Your task to perform on an android device: turn off improve location accuracy Image 0: 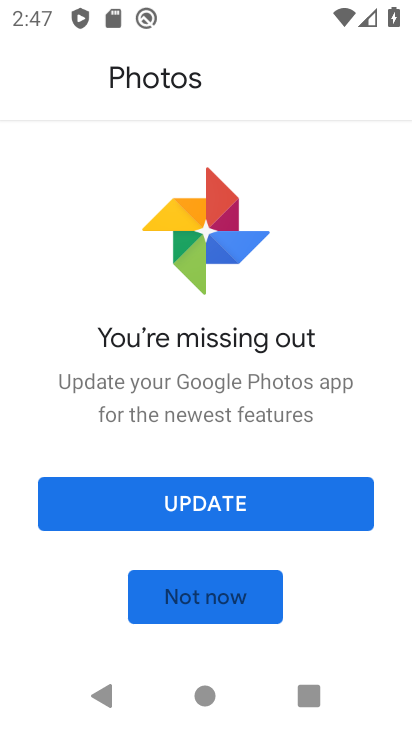
Step 0: press back button
Your task to perform on an android device: turn off improve location accuracy Image 1: 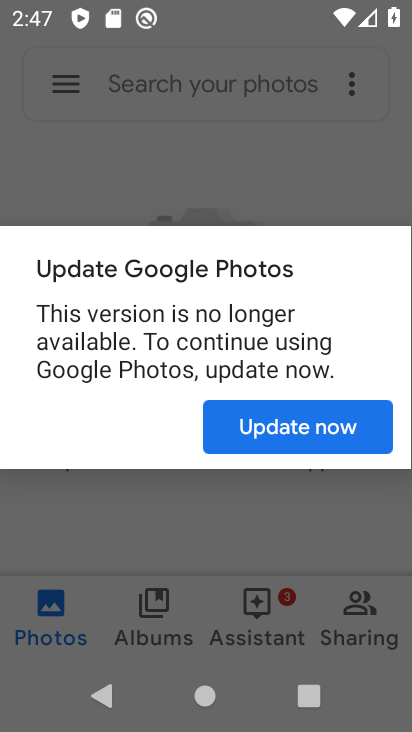
Step 1: press back button
Your task to perform on an android device: turn off improve location accuracy Image 2: 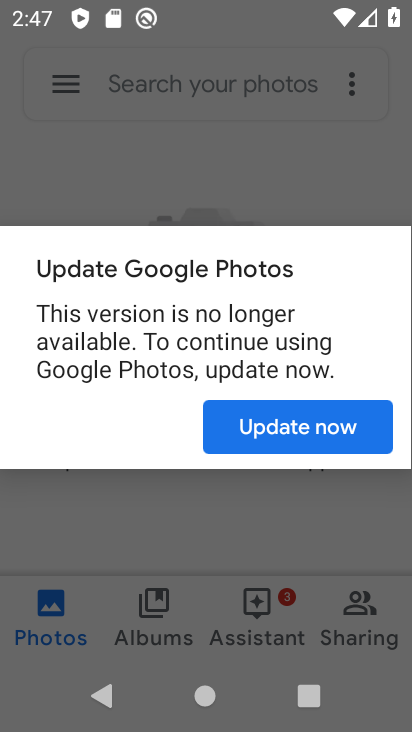
Step 2: press back button
Your task to perform on an android device: turn off improve location accuracy Image 3: 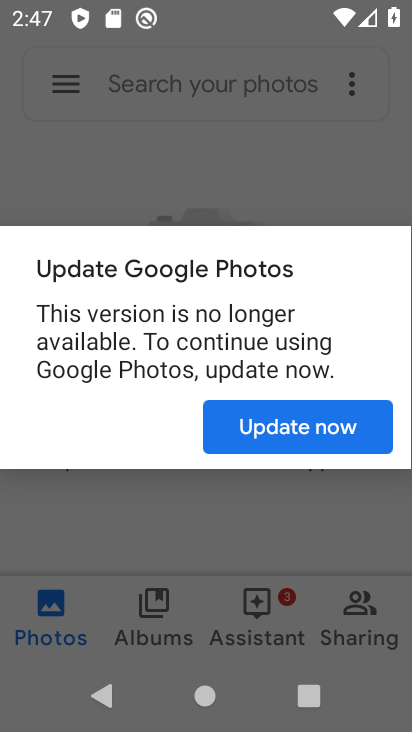
Step 3: press back button
Your task to perform on an android device: turn off improve location accuracy Image 4: 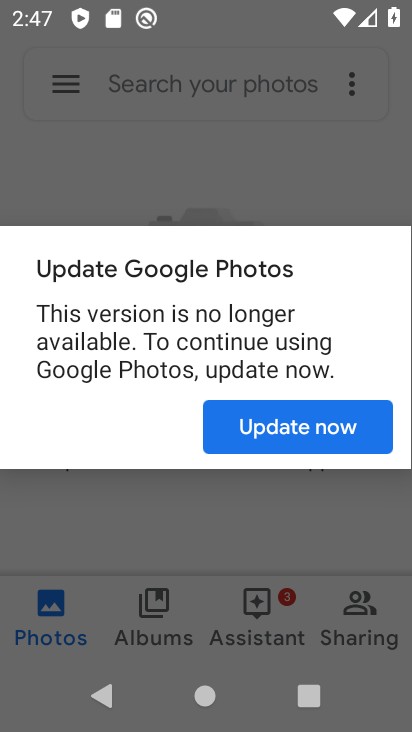
Step 4: press back button
Your task to perform on an android device: turn off improve location accuracy Image 5: 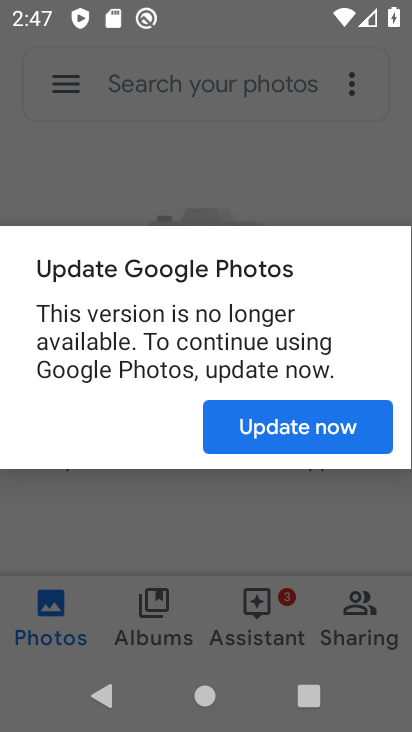
Step 5: press back button
Your task to perform on an android device: turn off improve location accuracy Image 6: 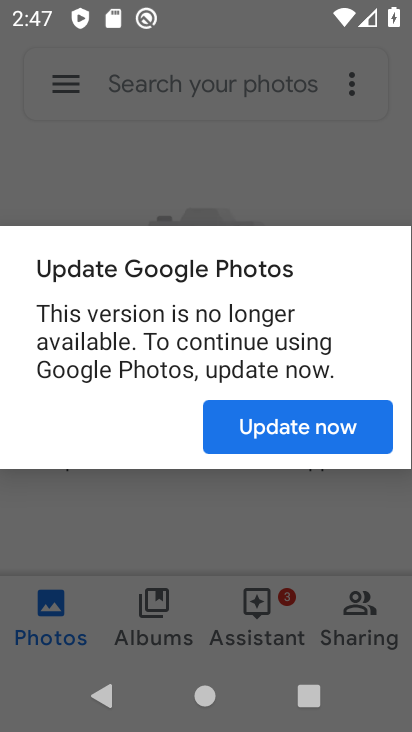
Step 6: press home button
Your task to perform on an android device: turn off improve location accuracy Image 7: 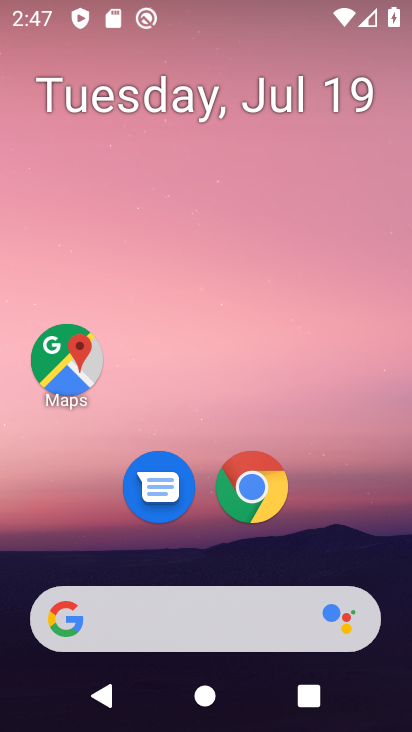
Step 7: drag from (145, 406) to (218, 3)
Your task to perform on an android device: turn off improve location accuracy Image 8: 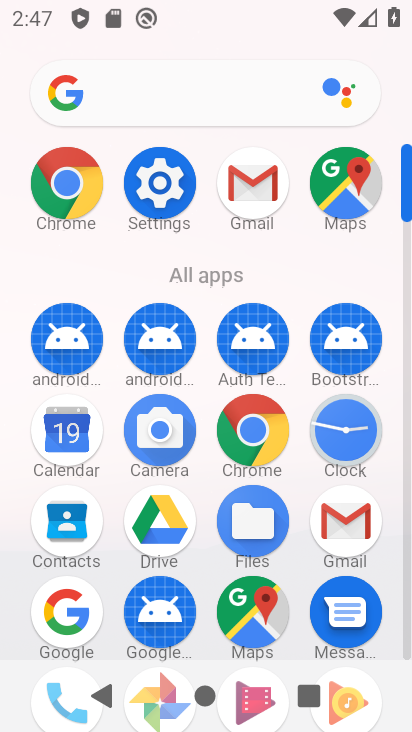
Step 8: click (162, 195)
Your task to perform on an android device: turn off improve location accuracy Image 9: 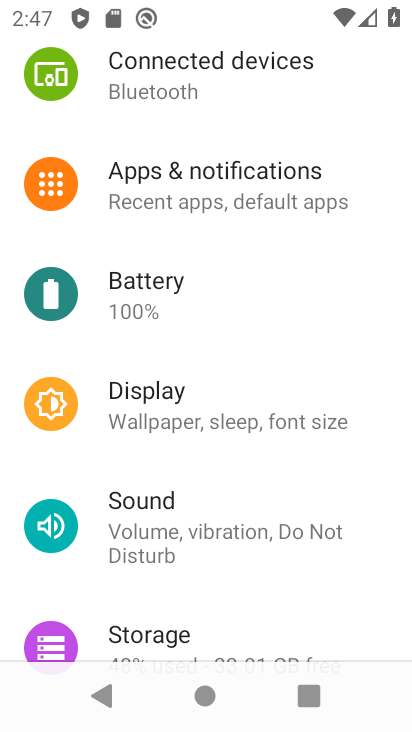
Step 9: drag from (183, 548) to (269, 35)
Your task to perform on an android device: turn off improve location accuracy Image 10: 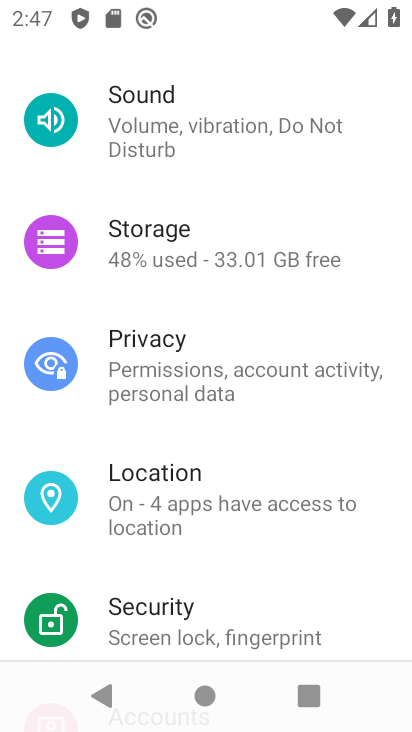
Step 10: click (193, 519)
Your task to perform on an android device: turn off improve location accuracy Image 11: 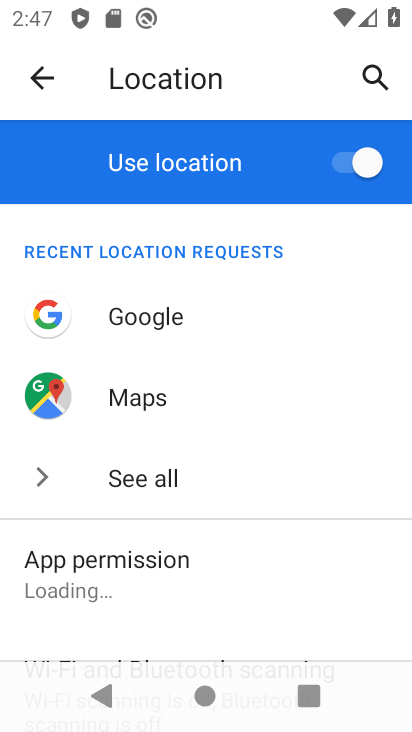
Step 11: drag from (218, 626) to (231, 47)
Your task to perform on an android device: turn off improve location accuracy Image 12: 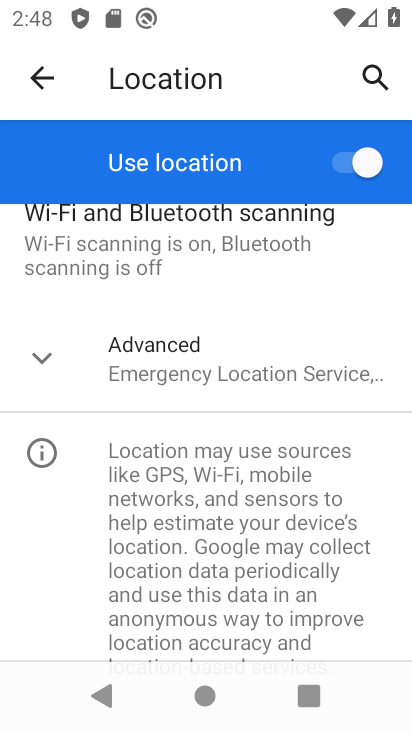
Step 12: click (209, 382)
Your task to perform on an android device: turn off improve location accuracy Image 13: 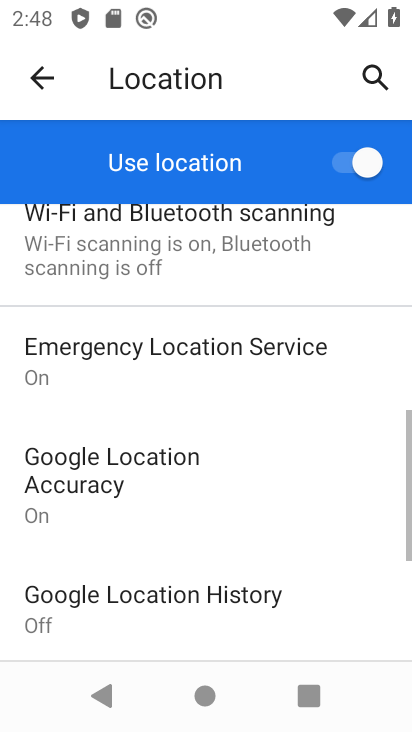
Step 13: click (121, 484)
Your task to perform on an android device: turn off improve location accuracy Image 14: 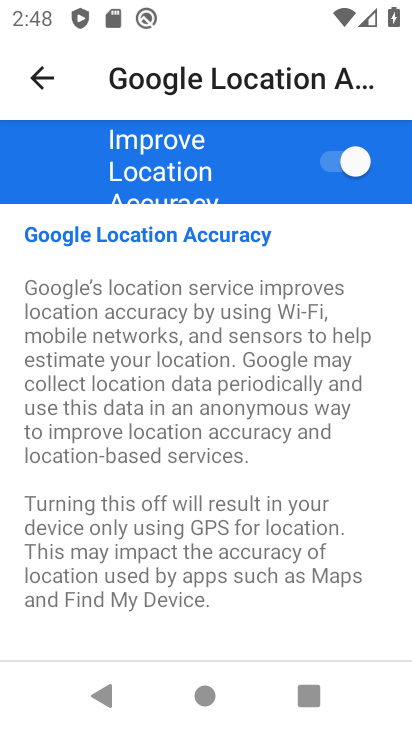
Step 14: drag from (150, 543) to (213, 0)
Your task to perform on an android device: turn off improve location accuracy Image 15: 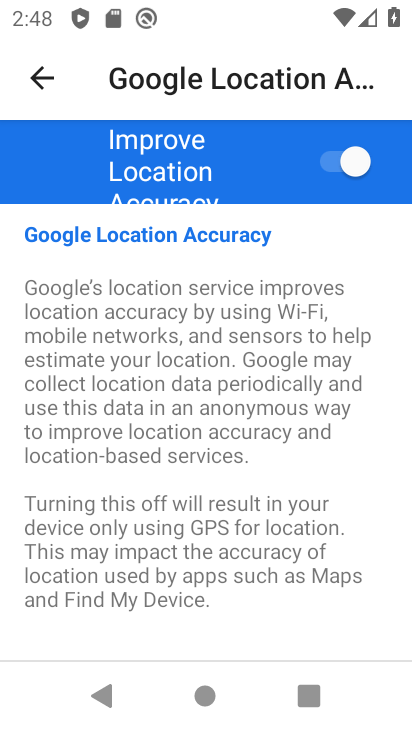
Step 15: click (345, 145)
Your task to perform on an android device: turn off improve location accuracy Image 16: 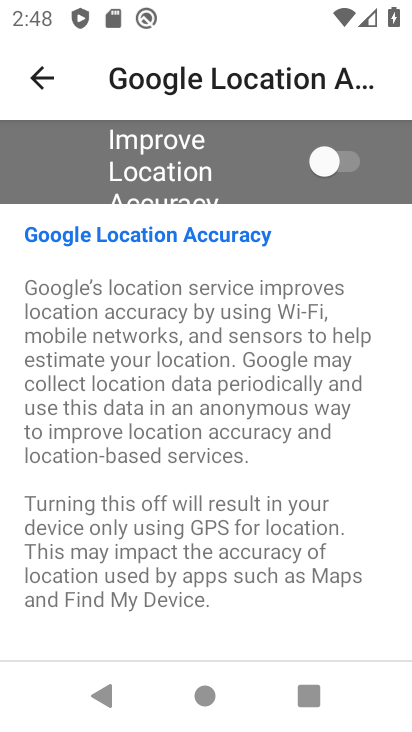
Step 16: task complete